Your task to perform on an android device: open app "Google Play Games" (install if not already installed) Image 0: 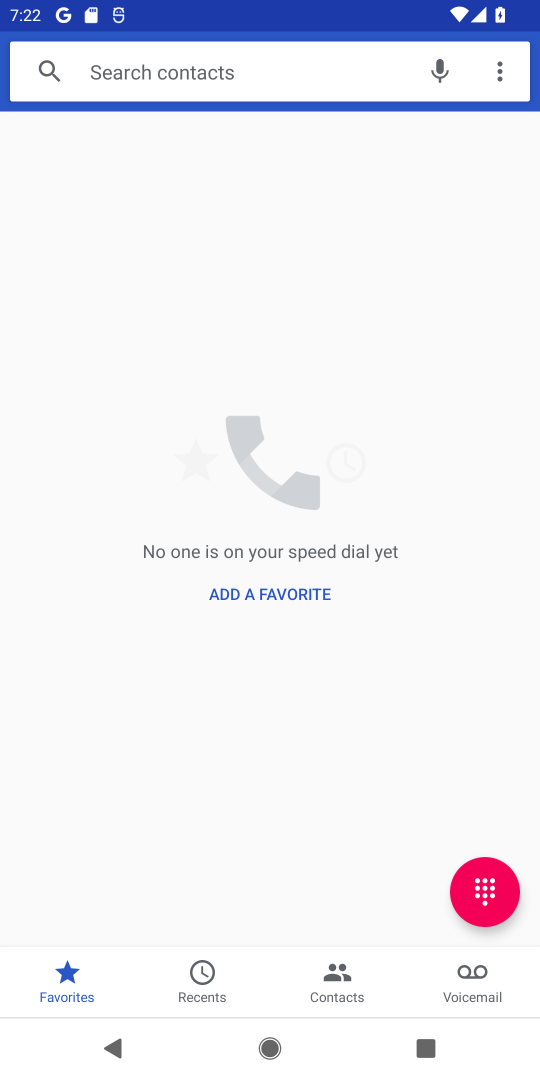
Step 0: press home button
Your task to perform on an android device: open app "Google Play Games" (install if not already installed) Image 1: 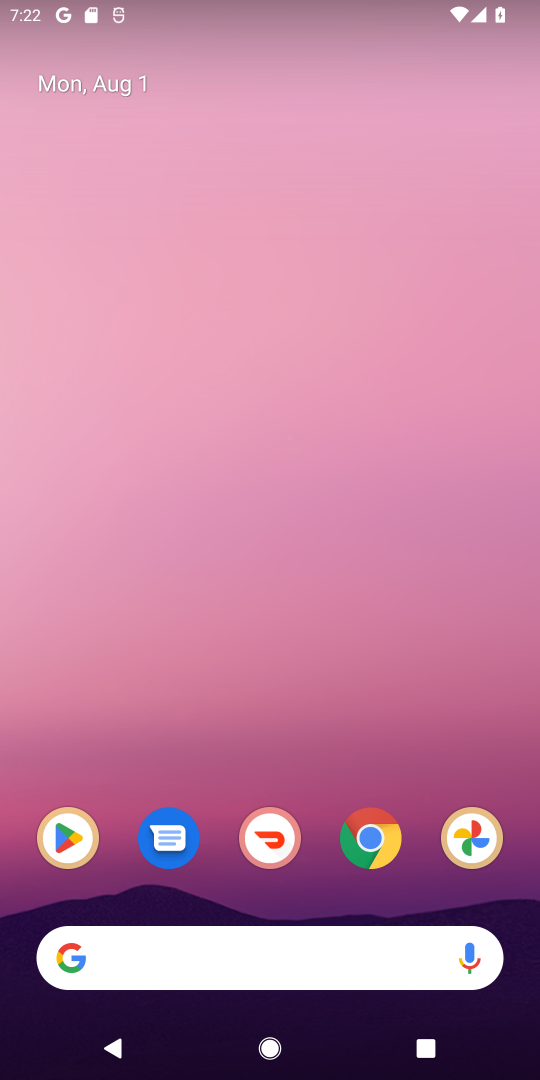
Step 1: click (77, 834)
Your task to perform on an android device: open app "Google Play Games" (install if not already installed) Image 2: 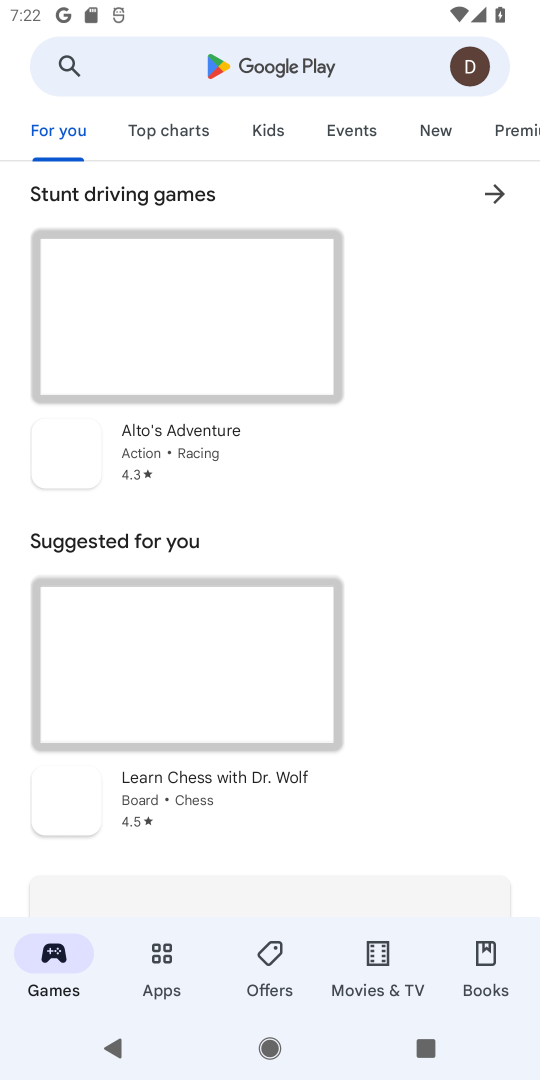
Step 2: click (243, 63)
Your task to perform on an android device: open app "Google Play Games" (install if not already installed) Image 3: 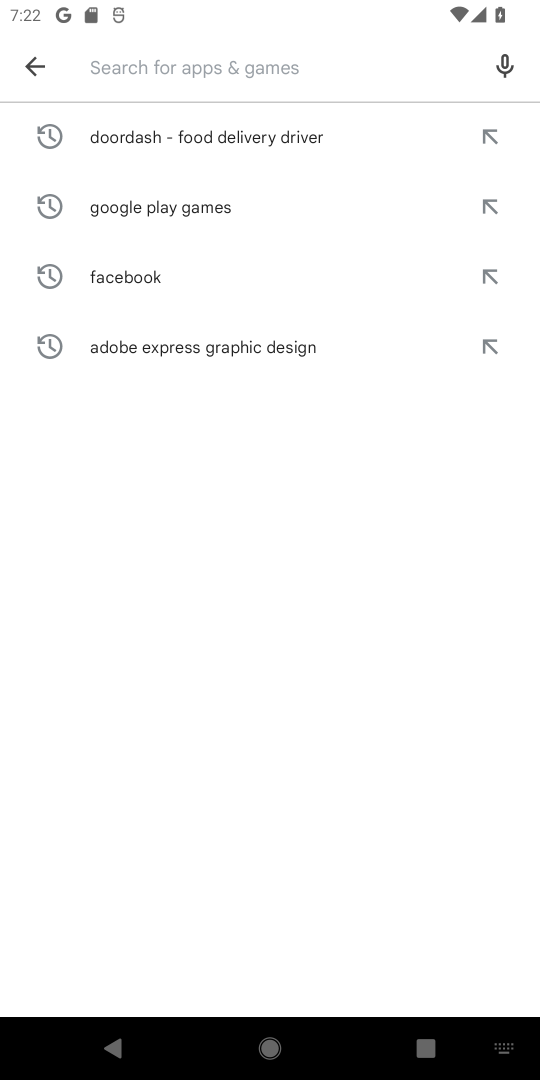
Step 3: type "Google Play Games"
Your task to perform on an android device: open app "Google Play Games" (install if not already installed) Image 4: 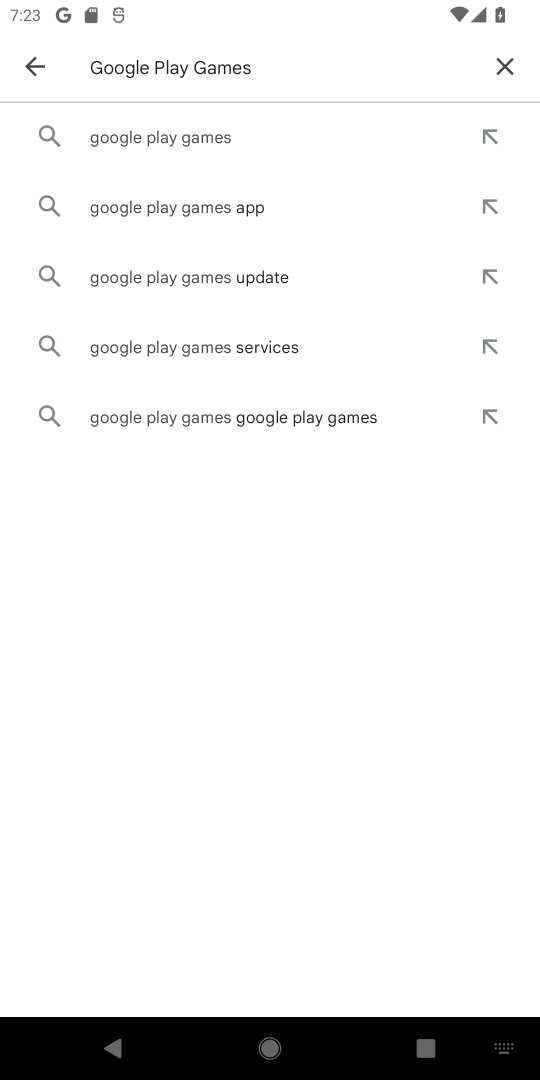
Step 4: click (174, 155)
Your task to perform on an android device: open app "Google Play Games" (install if not already installed) Image 5: 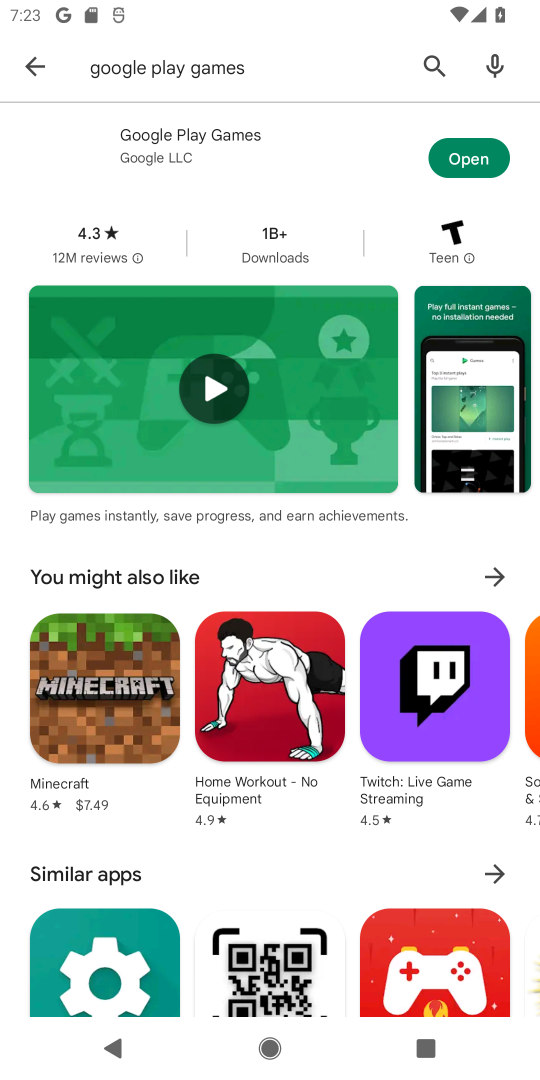
Step 5: click (455, 163)
Your task to perform on an android device: open app "Google Play Games" (install if not already installed) Image 6: 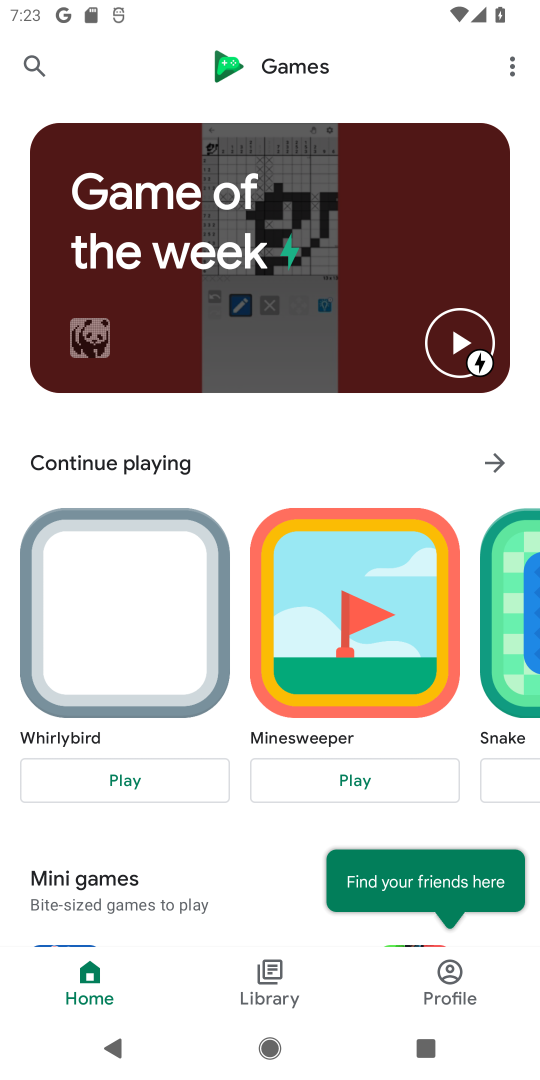
Step 6: task complete